Your task to perform on an android device: read, delete, or share a saved page in the chrome app Image 0: 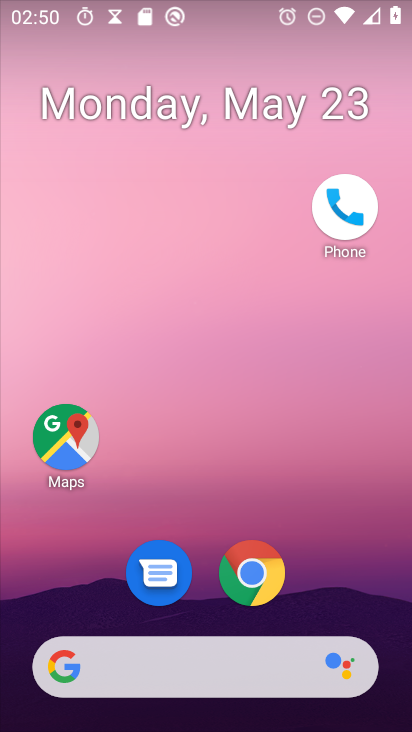
Step 0: press home button
Your task to perform on an android device: read, delete, or share a saved page in the chrome app Image 1: 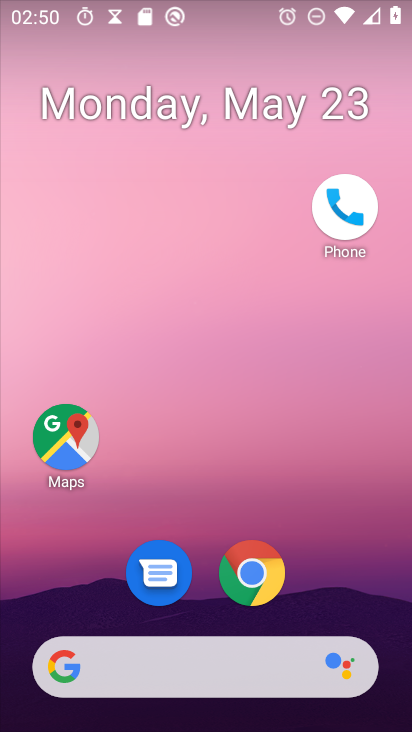
Step 1: click (274, 573)
Your task to perform on an android device: read, delete, or share a saved page in the chrome app Image 2: 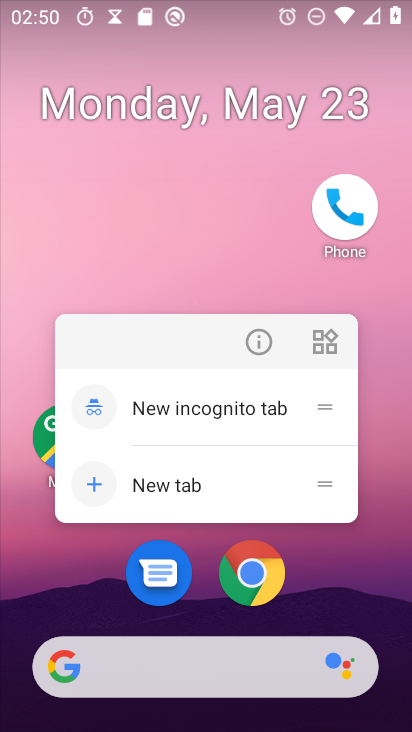
Step 2: click (263, 582)
Your task to perform on an android device: read, delete, or share a saved page in the chrome app Image 3: 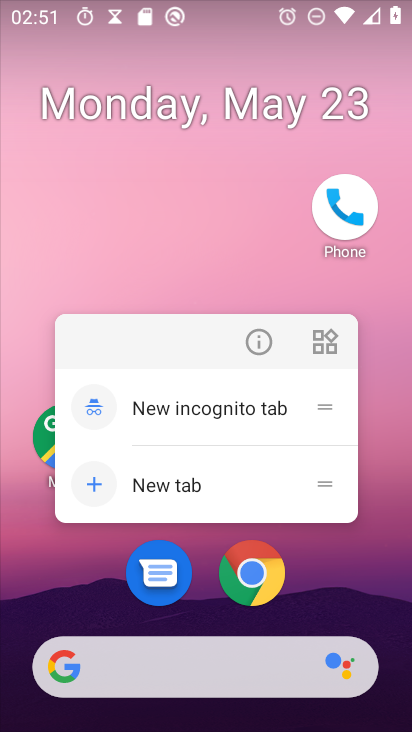
Step 3: click (235, 577)
Your task to perform on an android device: read, delete, or share a saved page in the chrome app Image 4: 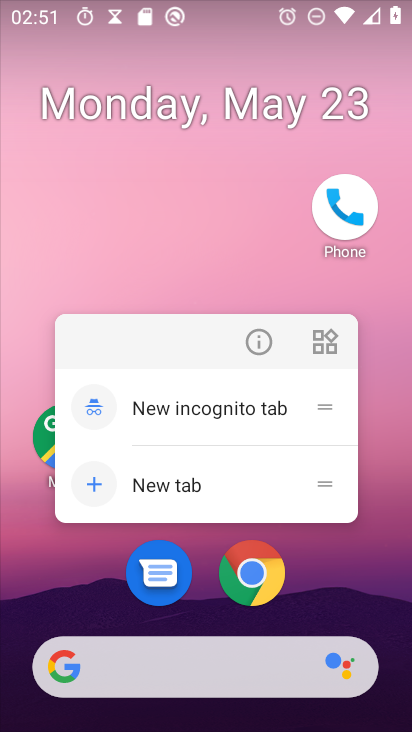
Step 4: click (247, 575)
Your task to perform on an android device: read, delete, or share a saved page in the chrome app Image 5: 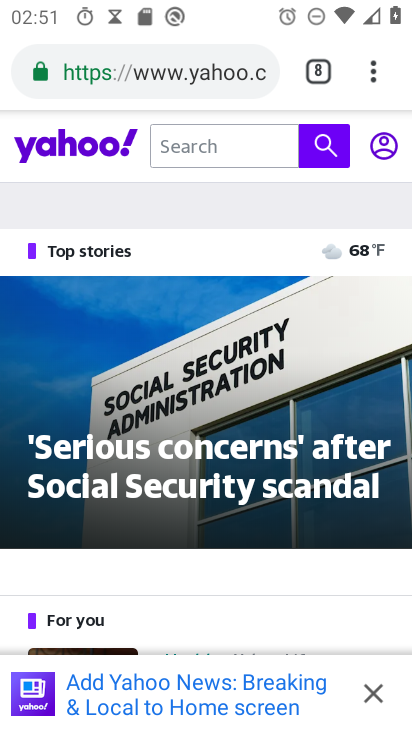
Step 5: drag from (378, 83) to (257, 158)
Your task to perform on an android device: read, delete, or share a saved page in the chrome app Image 6: 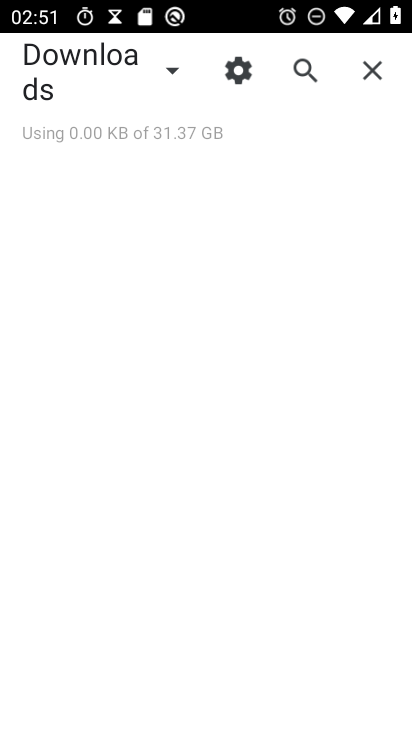
Step 6: click (171, 69)
Your task to perform on an android device: read, delete, or share a saved page in the chrome app Image 7: 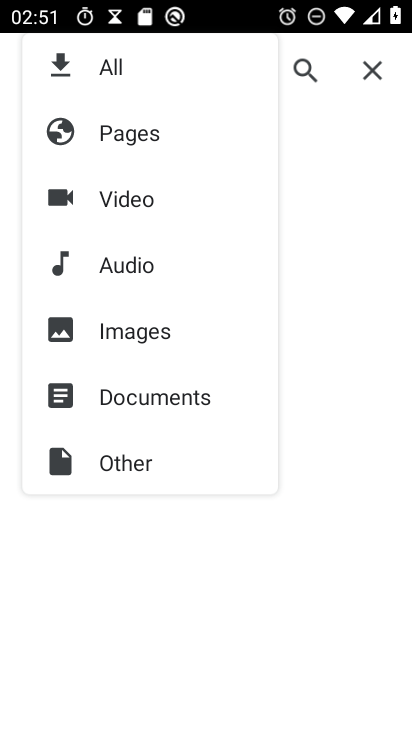
Step 7: click (125, 133)
Your task to perform on an android device: read, delete, or share a saved page in the chrome app Image 8: 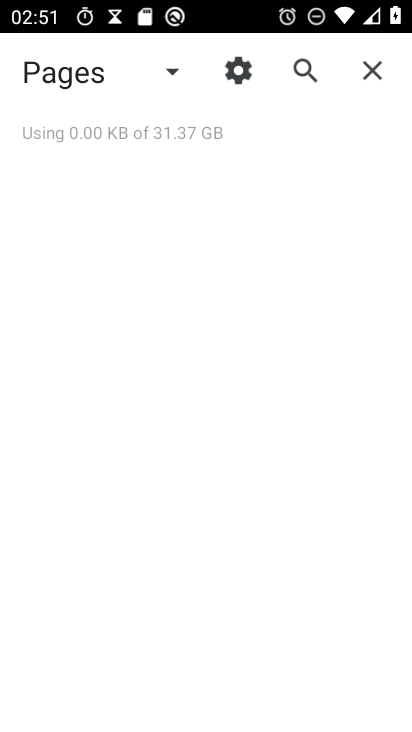
Step 8: task complete